Your task to perform on an android device: Do I have any events tomorrow? Image 0: 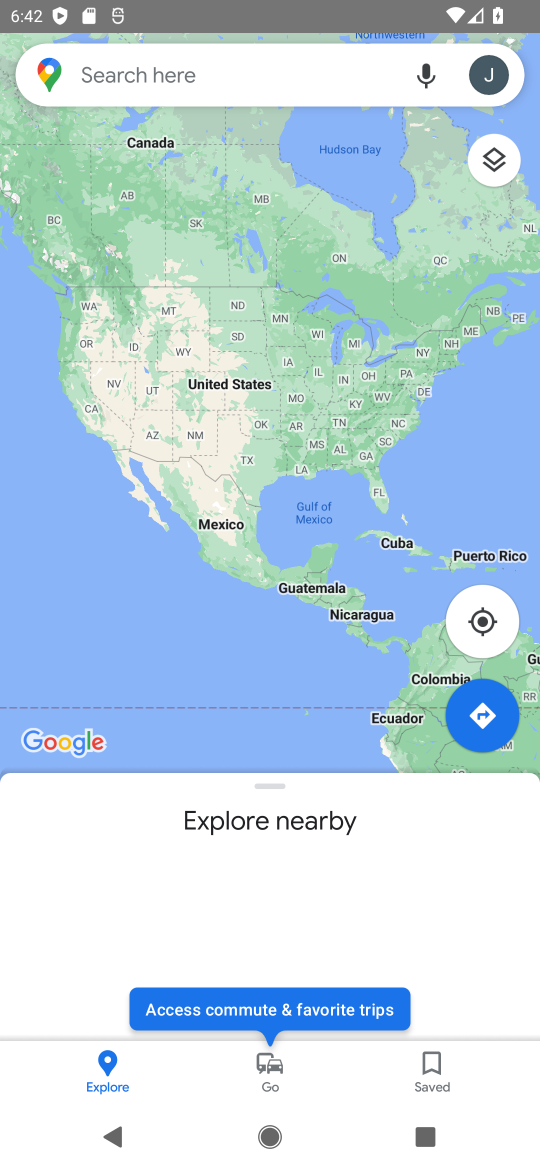
Step 0: press home button
Your task to perform on an android device: Do I have any events tomorrow? Image 1: 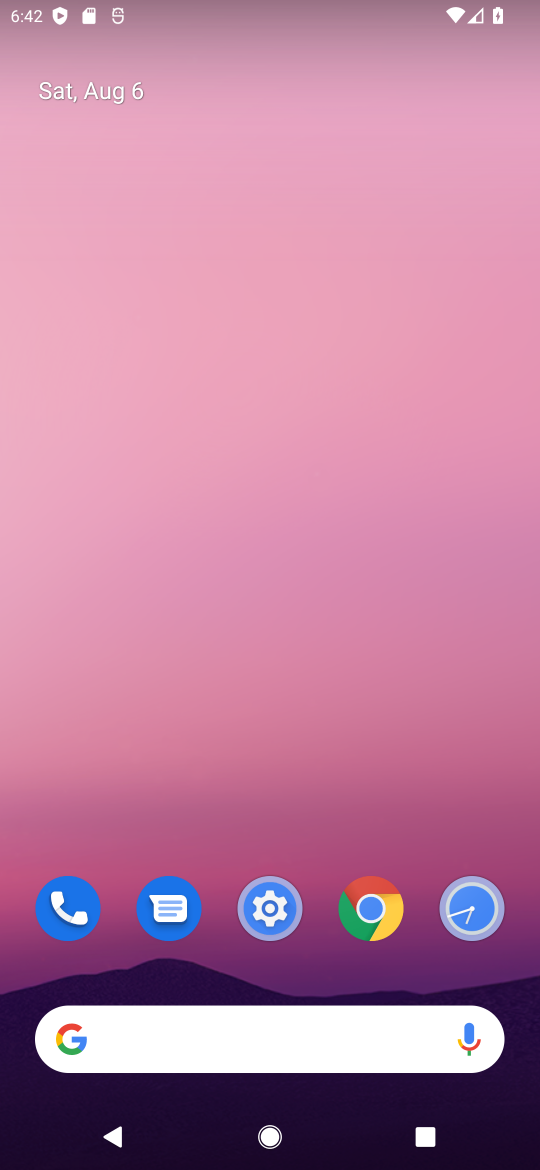
Step 1: drag from (305, 849) to (277, 76)
Your task to perform on an android device: Do I have any events tomorrow? Image 2: 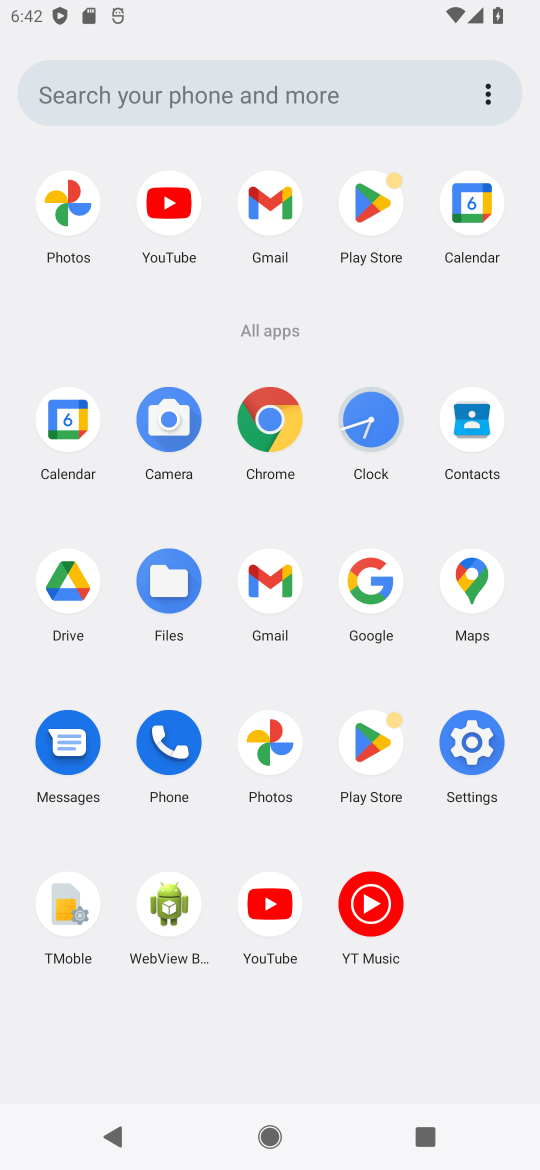
Step 2: click (478, 198)
Your task to perform on an android device: Do I have any events tomorrow? Image 3: 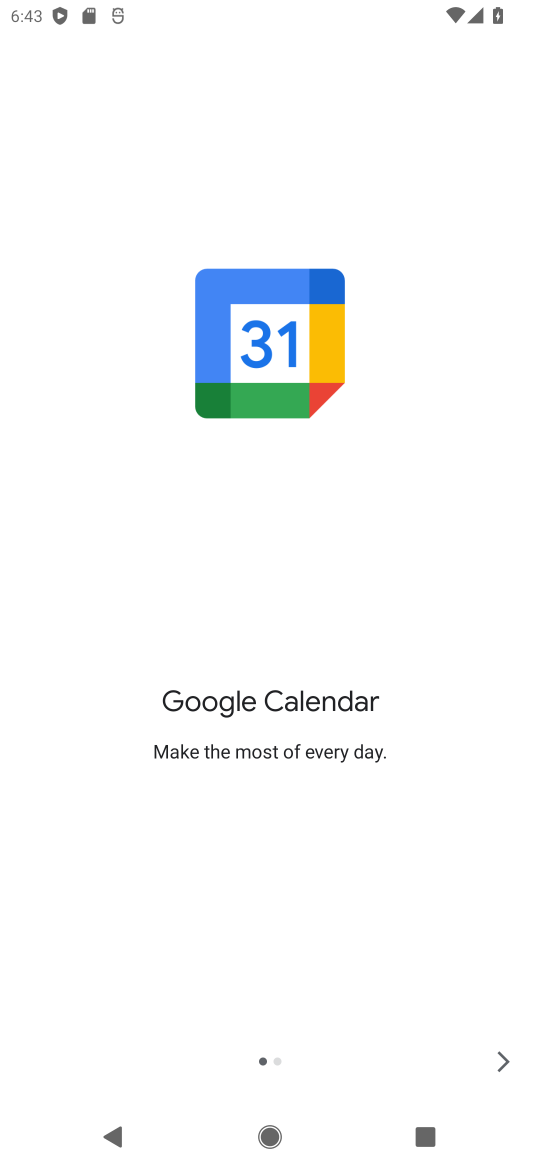
Step 3: click (507, 1050)
Your task to perform on an android device: Do I have any events tomorrow? Image 4: 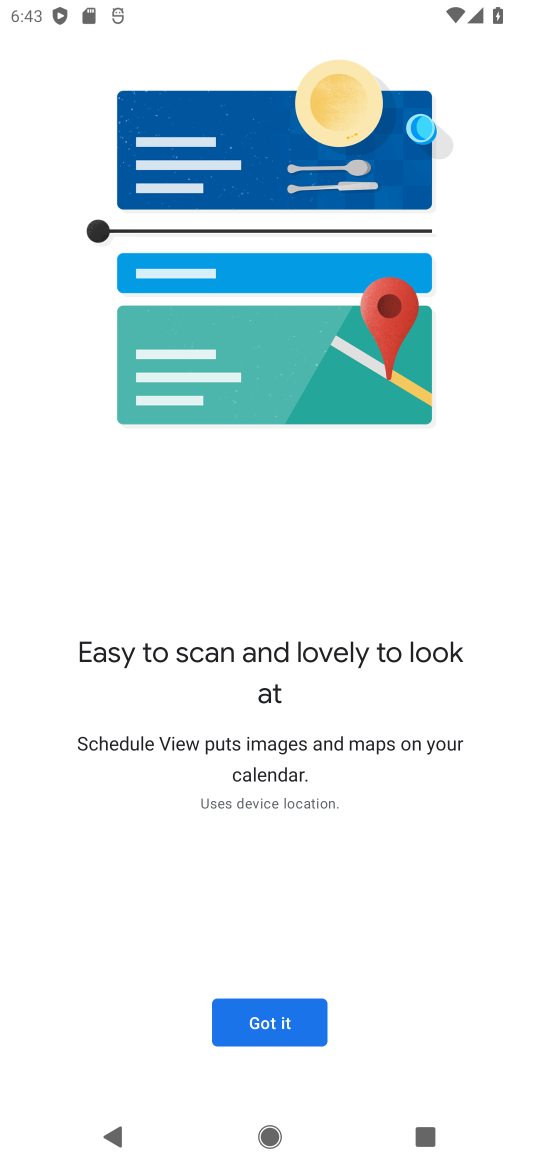
Step 4: click (300, 1021)
Your task to perform on an android device: Do I have any events tomorrow? Image 5: 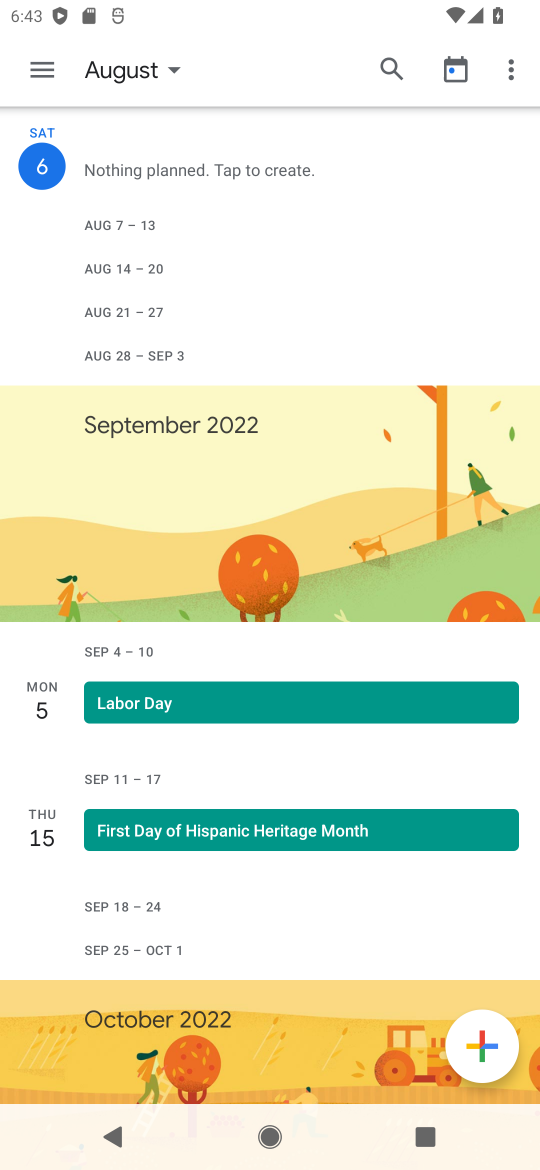
Step 5: click (518, 80)
Your task to perform on an android device: Do I have any events tomorrow? Image 6: 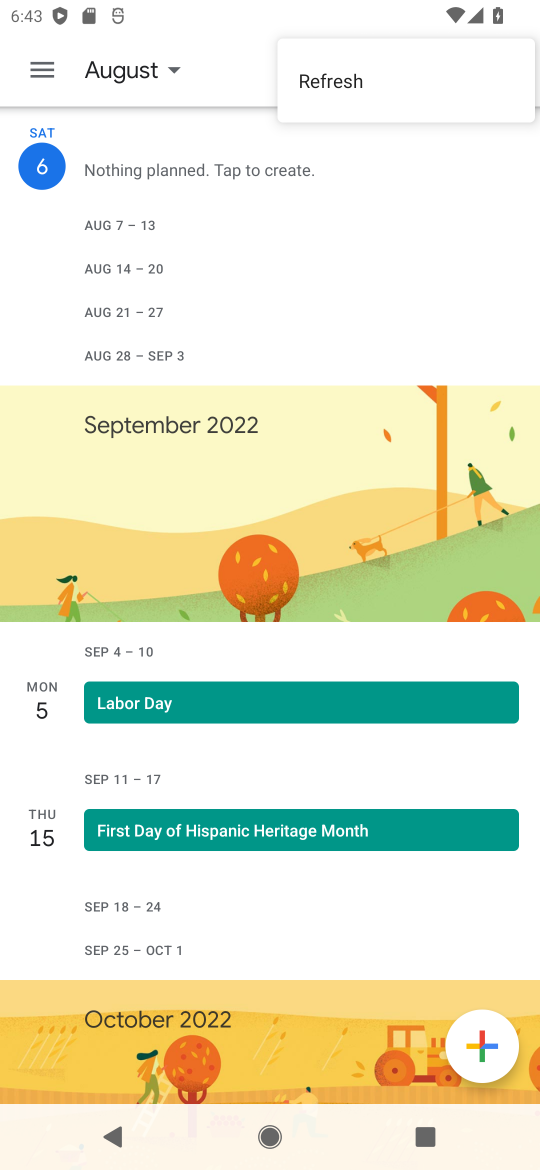
Step 6: click (41, 64)
Your task to perform on an android device: Do I have any events tomorrow? Image 7: 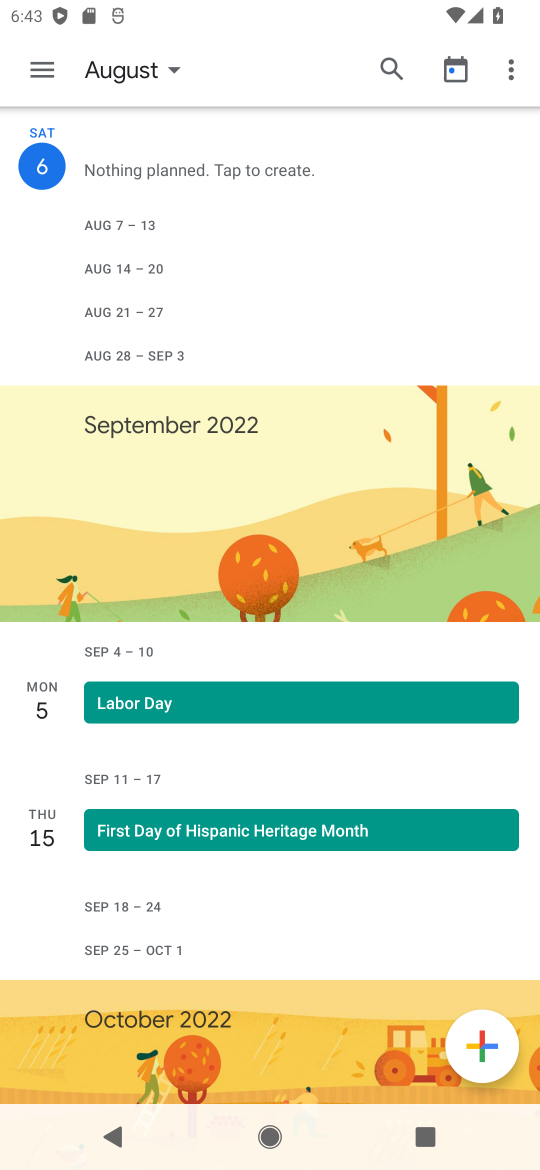
Step 7: click (49, 66)
Your task to perform on an android device: Do I have any events tomorrow? Image 8: 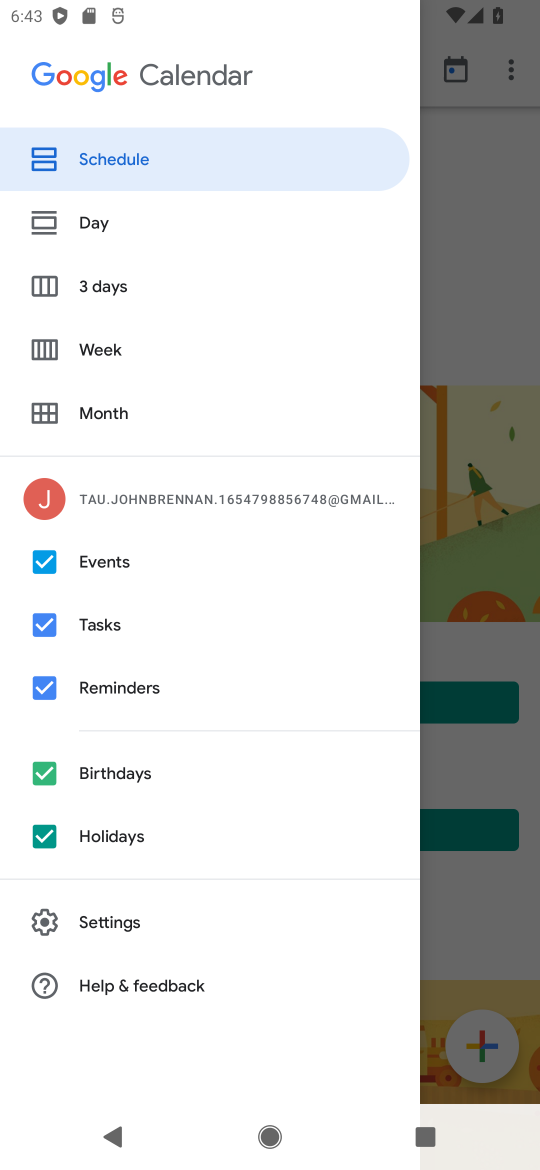
Step 8: click (102, 214)
Your task to perform on an android device: Do I have any events tomorrow? Image 9: 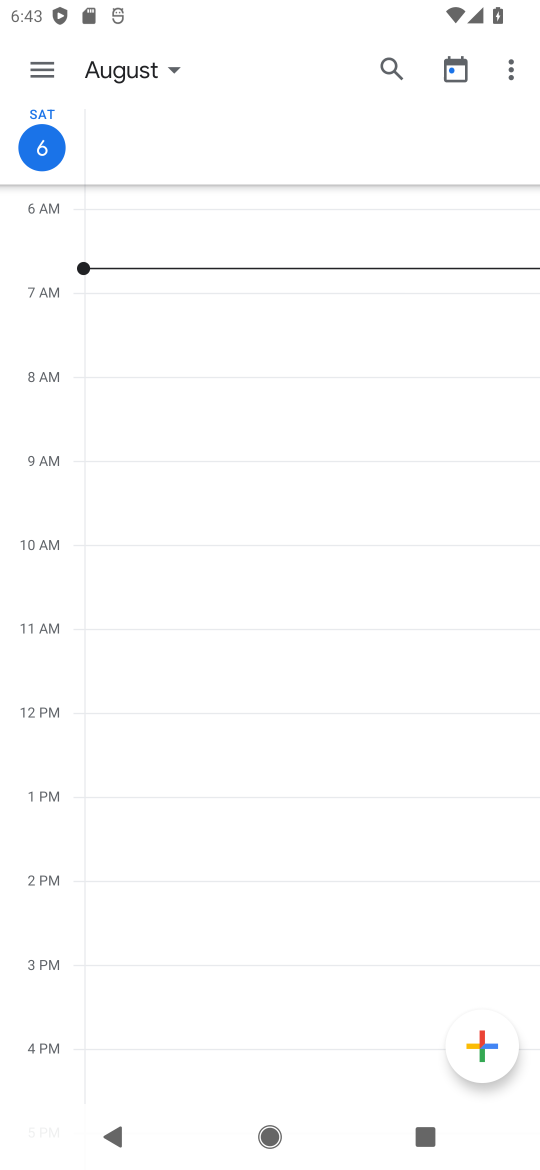
Step 9: click (42, 67)
Your task to perform on an android device: Do I have any events tomorrow? Image 10: 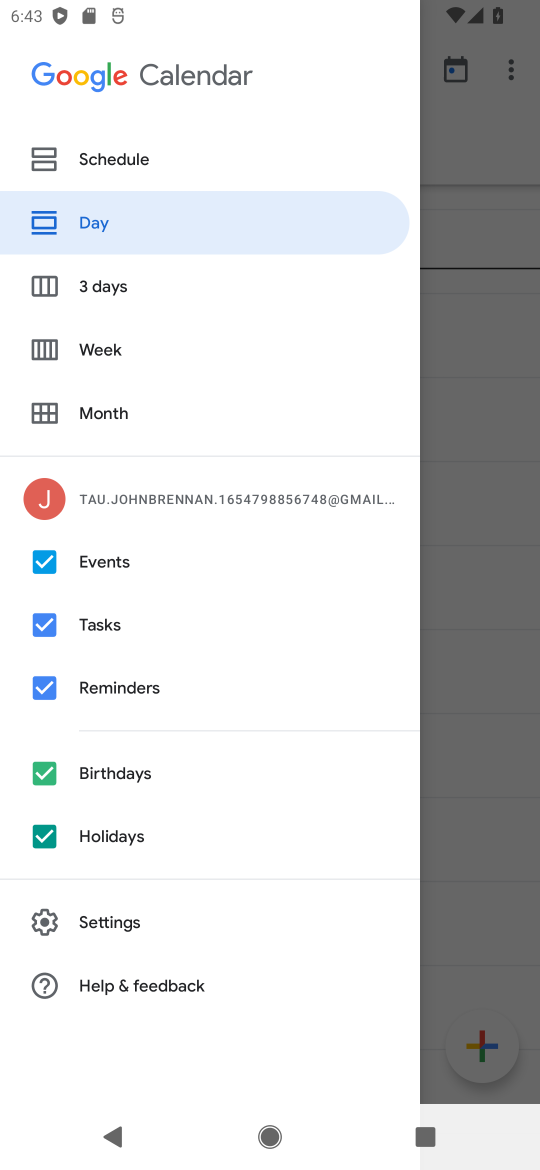
Step 10: click (454, 212)
Your task to perform on an android device: Do I have any events tomorrow? Image 11: 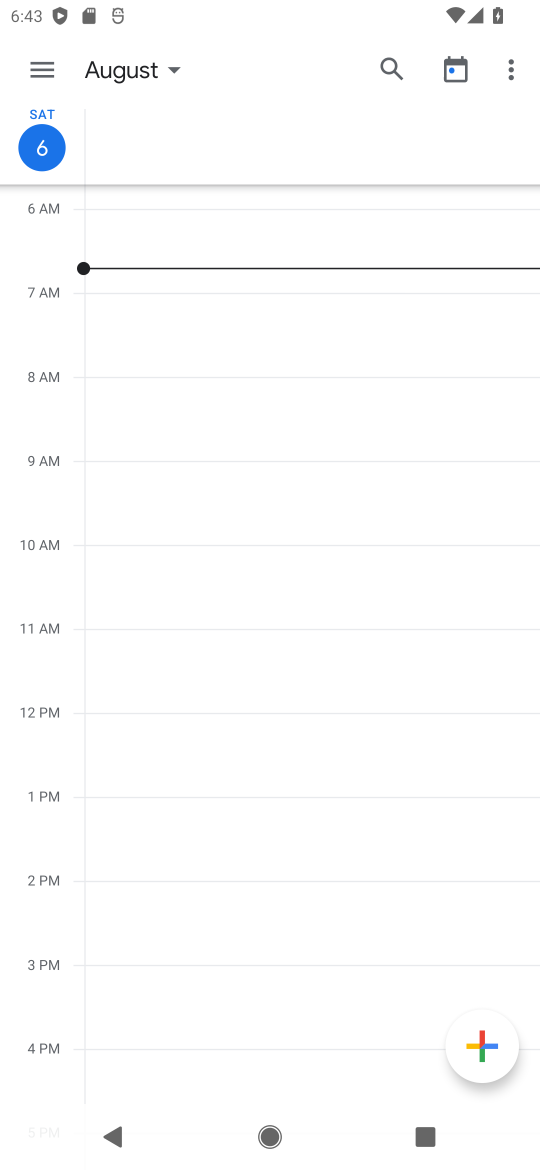
Step 11: click (164, 62)
Your task to perform on an android device: Do I have any events tomorrow? Image 12: 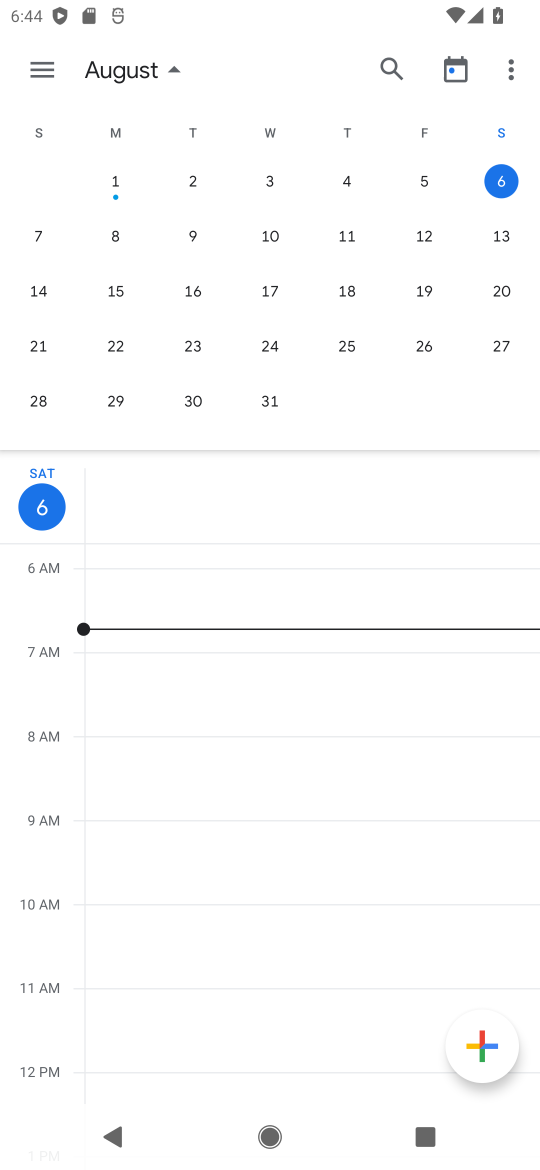
Step 12: click (39, 236)
Your task to perform on an android device: Do I have any events tomorrow? Image 13: 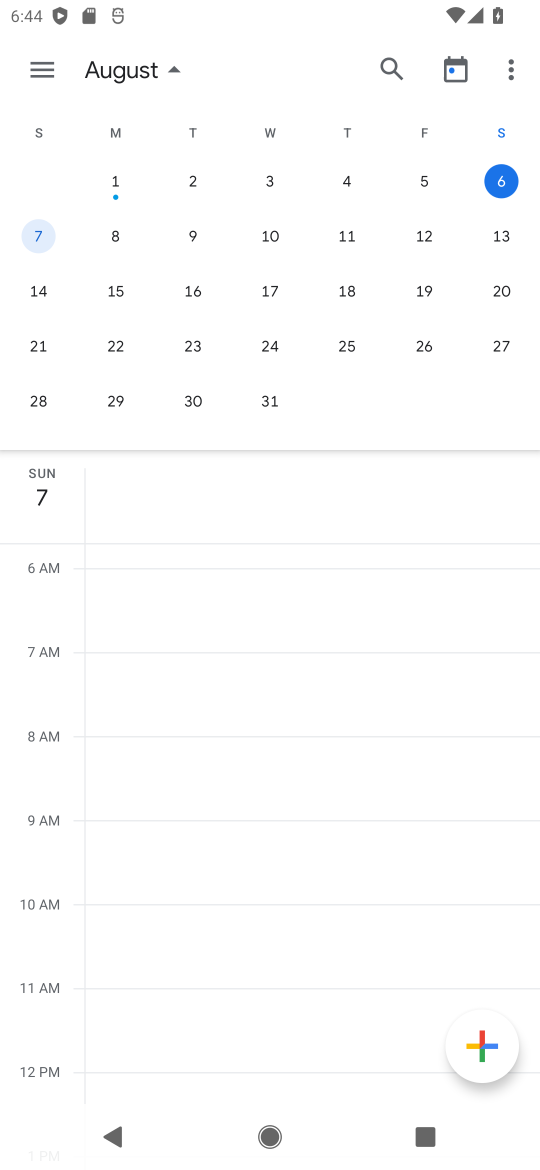
Step 13: task complete